Your task to perform on an android device: Clear the shopping cart on ebay.com. Add usb-b to the cart on ebay.com Image 0: 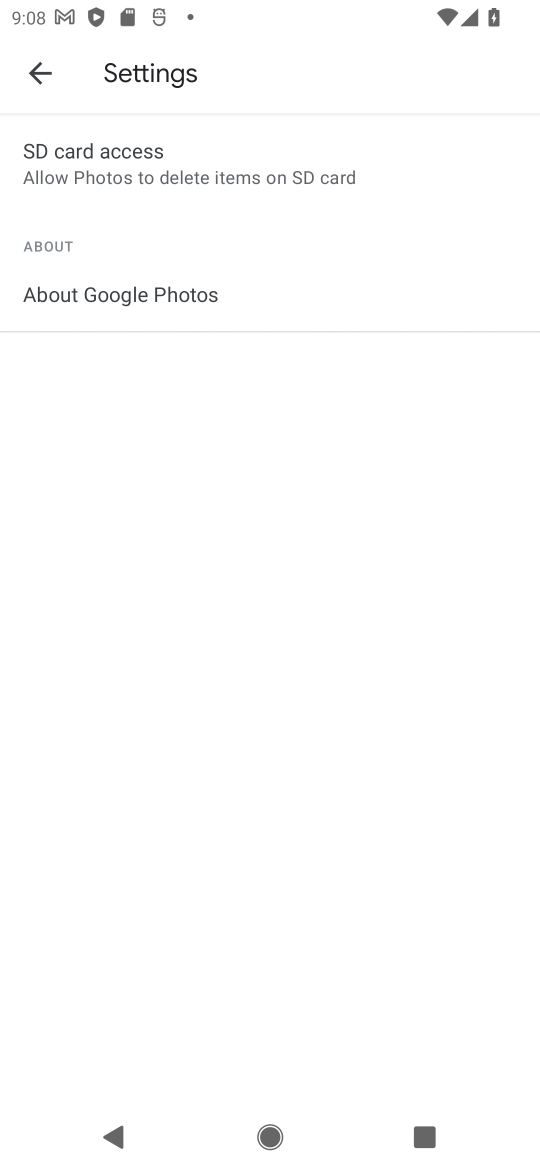
Step 0: press home button
Your task to perform on an android device: Clear the shopping cart on ebay.com. Add usb-b to the cart on ebay.com Image 1: 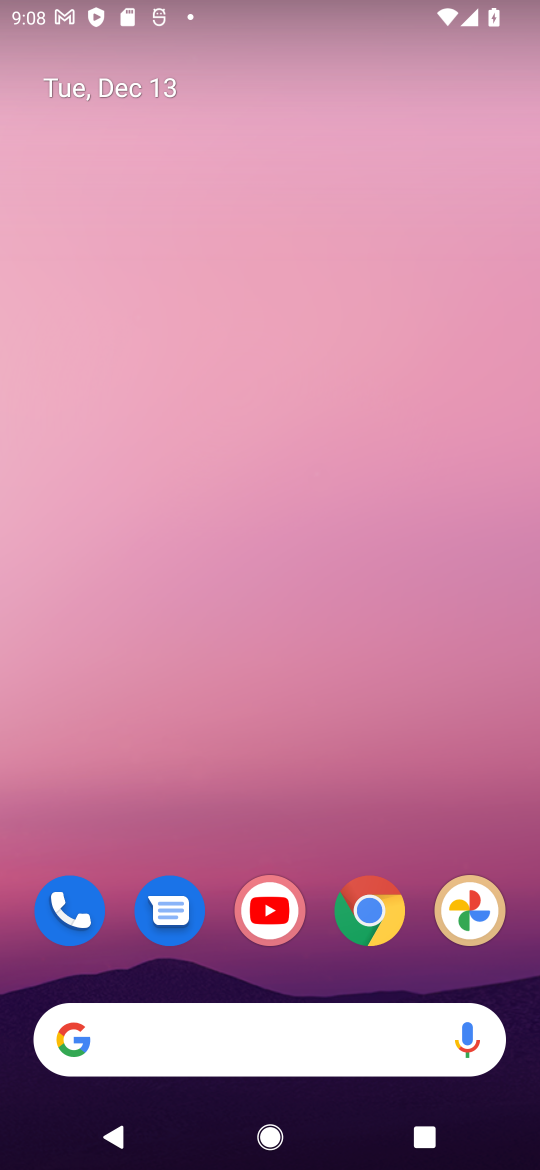
Step 1: drag from (199, 959) to (231, 483)
Your task to perform on an android device: Clear the shopping cart on ebay.com. Add usb-b to the cart on ebay.com Image 2: 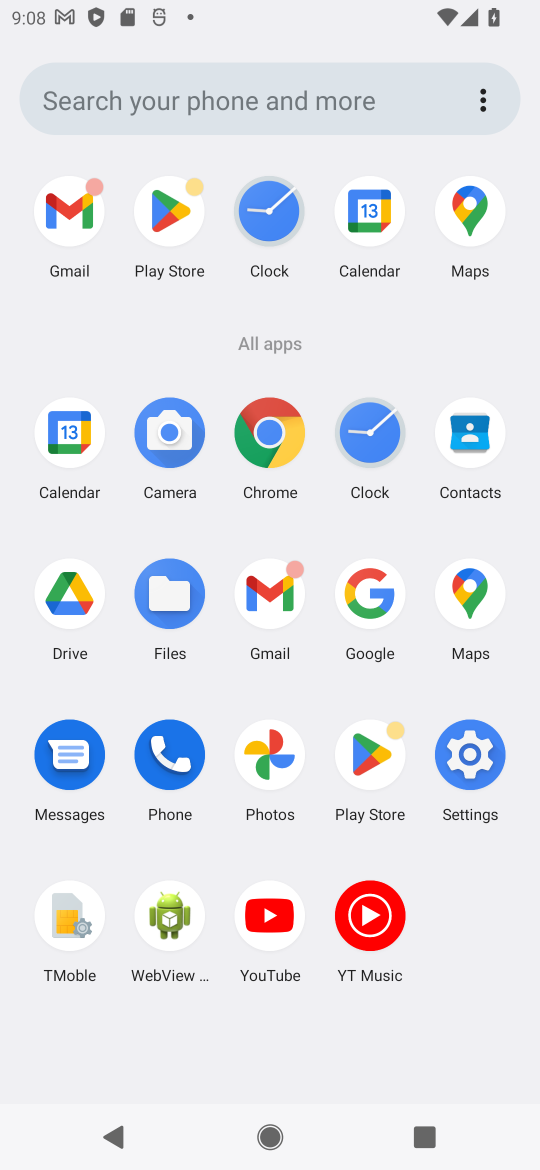
Step 2: click (386, 589)
Your task to perform on an android device: Clear the shopping cart on ebay.com. Add usb-b to the cart on ebay.com Image 3: 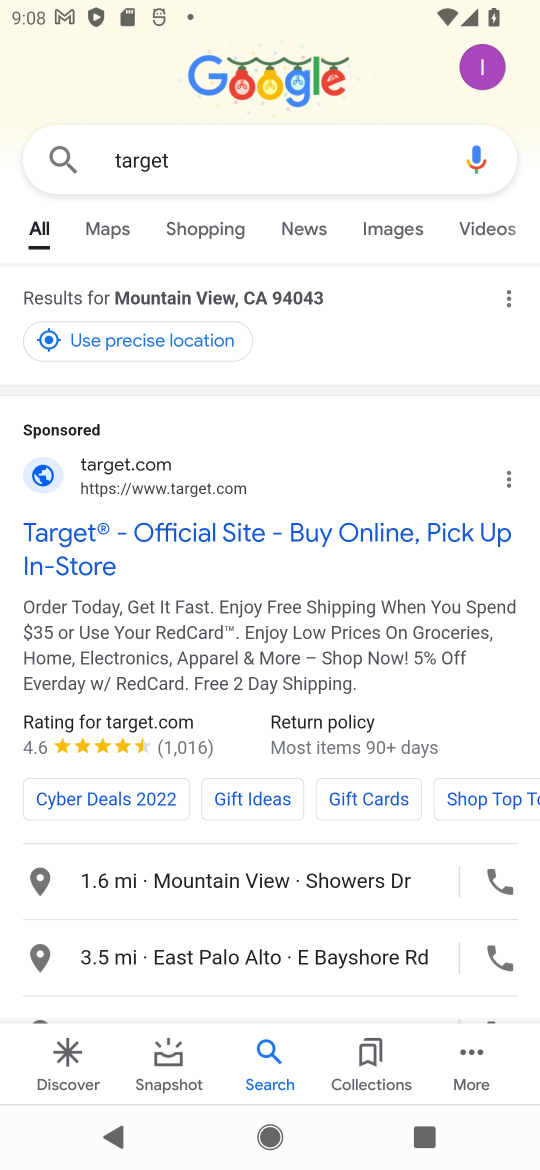
Step 3: click (166, 152)
Your task to perform on an android device: Clear the shopping cart on ebay.com. Add usb-b to the cart on ebay.com Image 4: 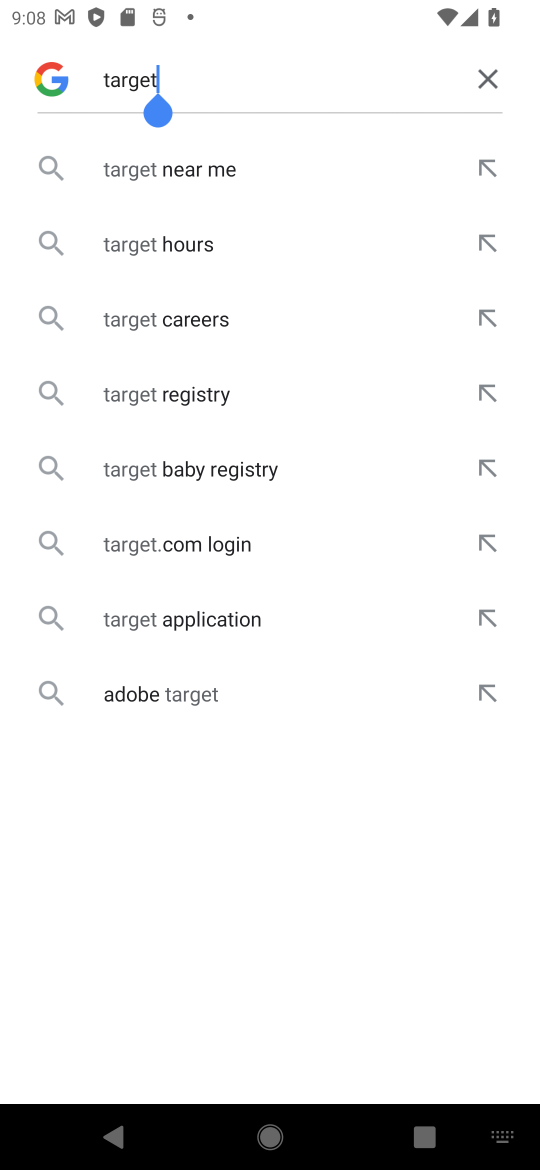
Step 4: click (485, 76)
Your task to perform on an android device: Clear the shopping cart on ebay.com. Add usb-b to the cart on ebay.com Image 5: 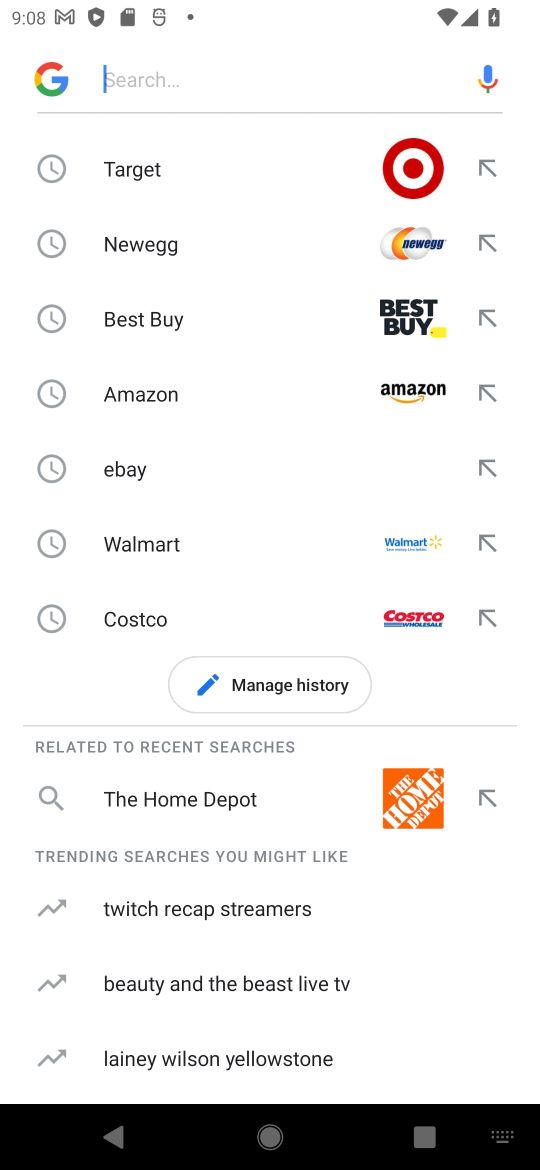
Step 5: click (144, 469)
Your task to perform on an android device: Clear the shopping cart on ebay.com. Add usb-b to the cart on ebay.com Image 6: 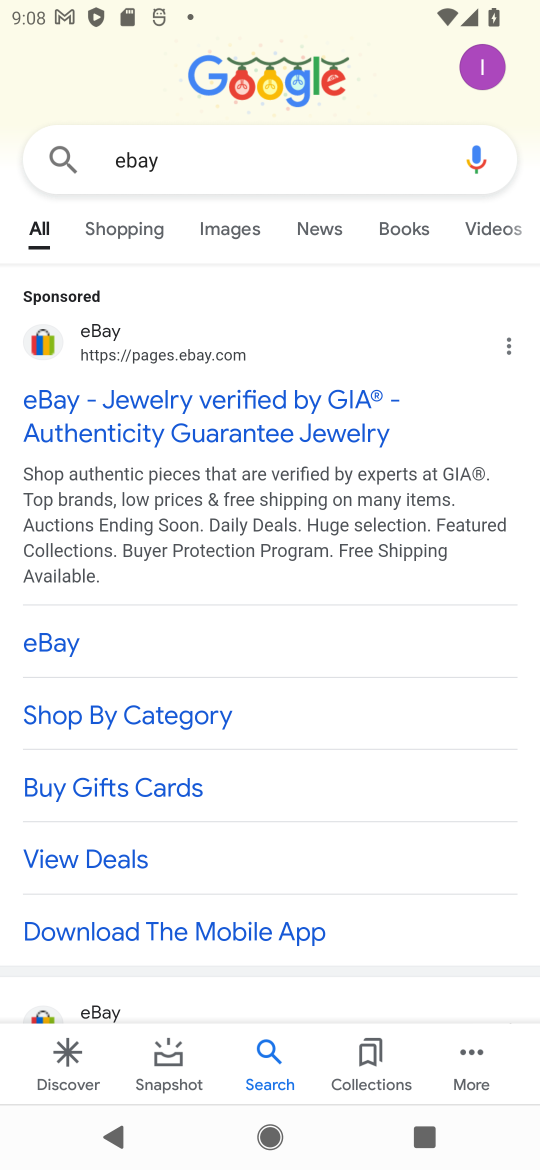
Step 6: click (132, 414)
Your task to perform on an android device: Clear the shopping cart on ebay.com. Add usb-b to the cart on ebay.com Image 7: 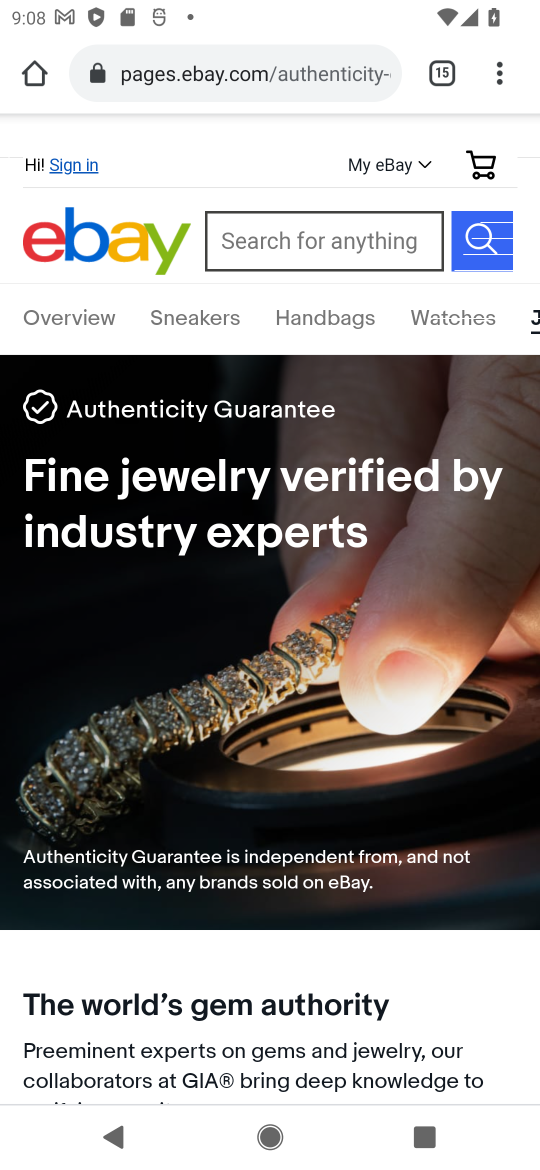
Step 7: click (228, 241)
Your task to perform on an android device: Clear the shopping cart on ebay.com. Add usb-b to the cart on ebay.com Image 8: 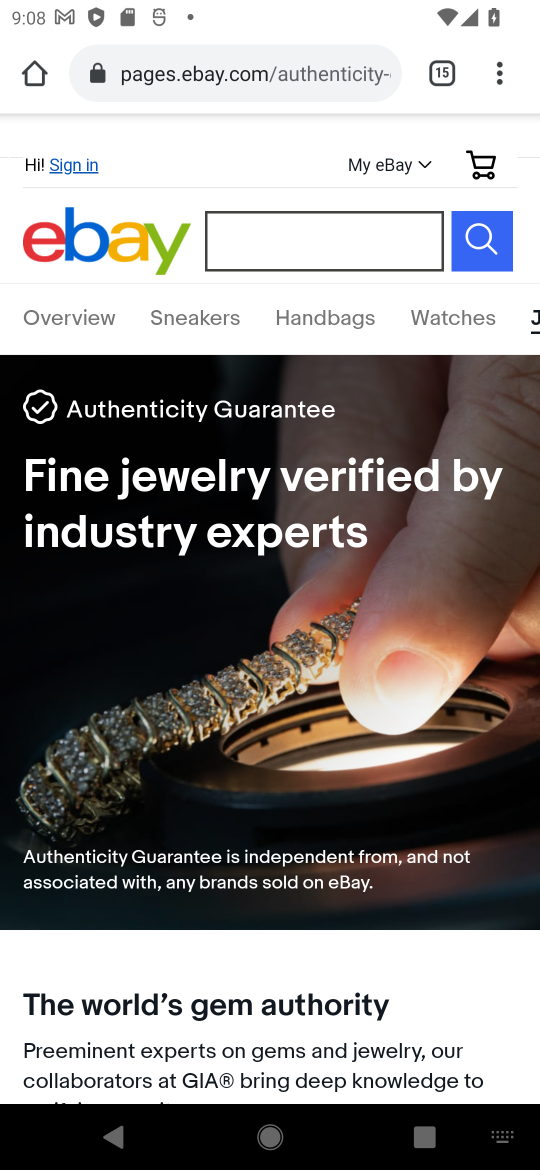
Step 8: type "usb-b"
Your task to perform on an android device: Clear the shopping cart on ebay.com. Add usb-b to the cart on ebay.com Image 9: 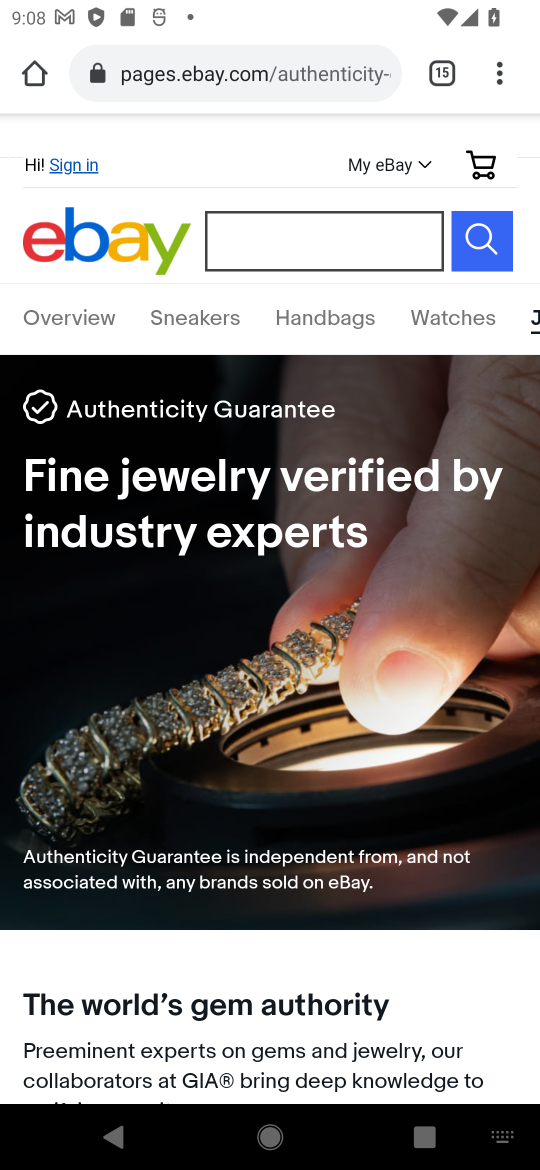
Step 9: click (486, 237)
Your task to perform on an android device: Clear the shopping cart on ebay.com. Add usb-b to the cart on ebay.com Image 10: 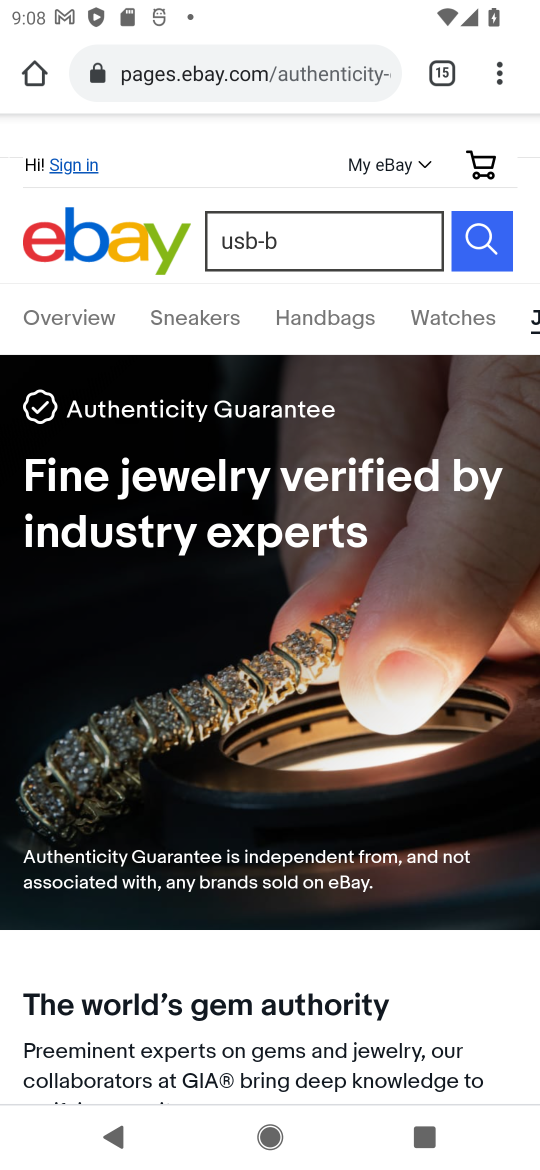
Step 10: task complete